Your task to perform on an android device: set the stopwatch Image 0: 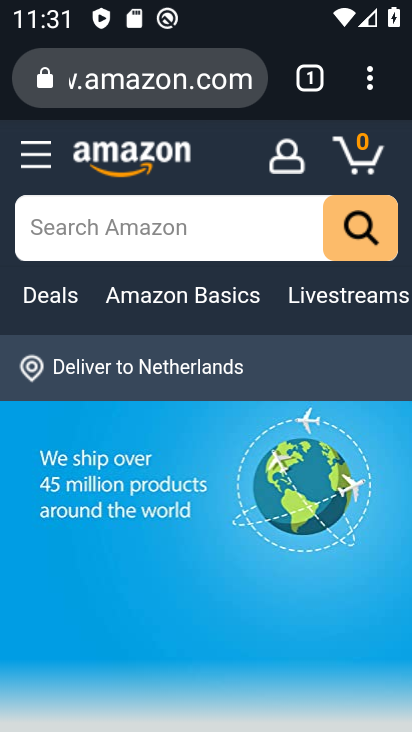
Step 0: press back button
Your task to perform on an android device: set the stopwatch Image 1: 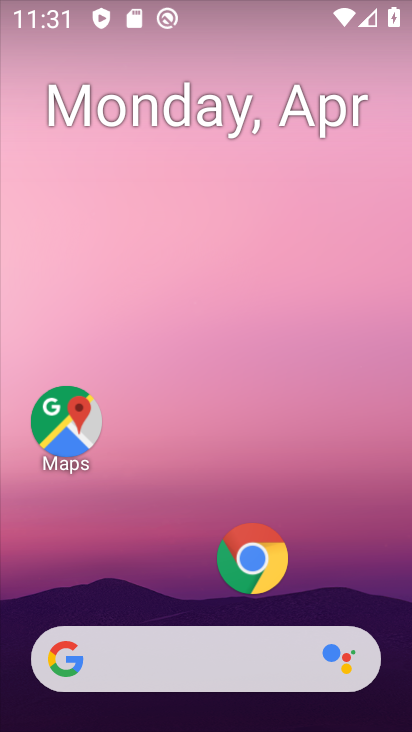
Step 1: drag from (142, 602) to (189, 101)
Your task to perform on an android device: set the stopwatch Image 2: 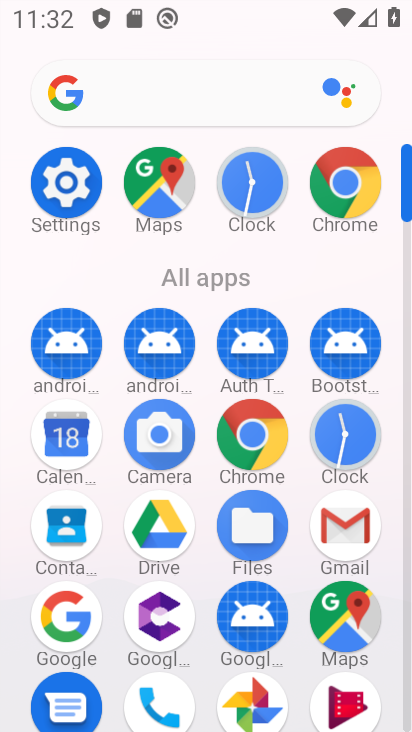
Step 2: click (355, 435)
Your task to perform on an android device: set the stopwatch Image 3: 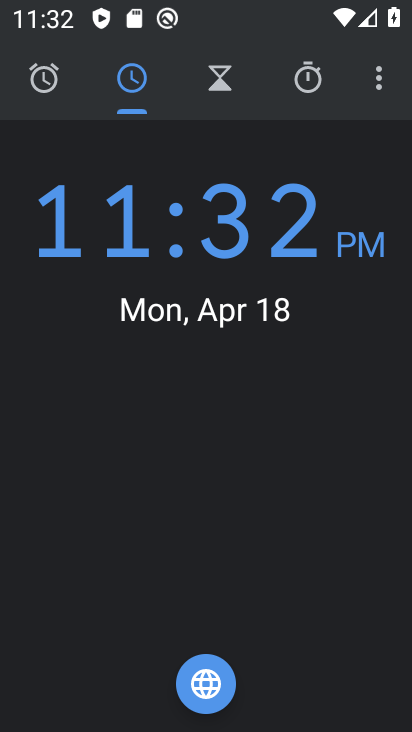
Step 3: click (305, 84)
Your task to perform on an android device: set the stopwatch Image 4: 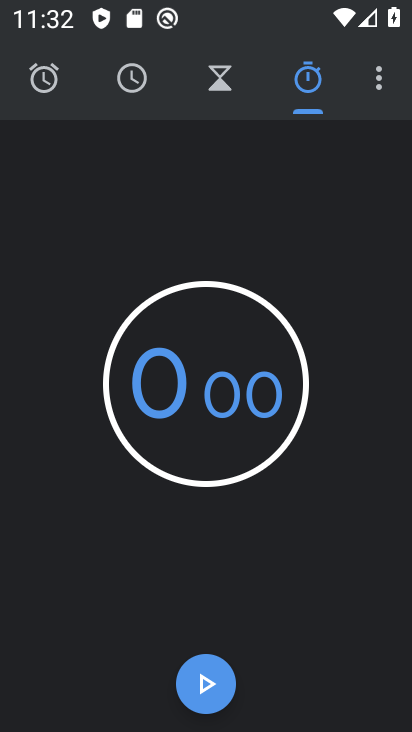
Step 4: click (225, 354)
Your task to perform on an android device: set the stopwatch Image 5: 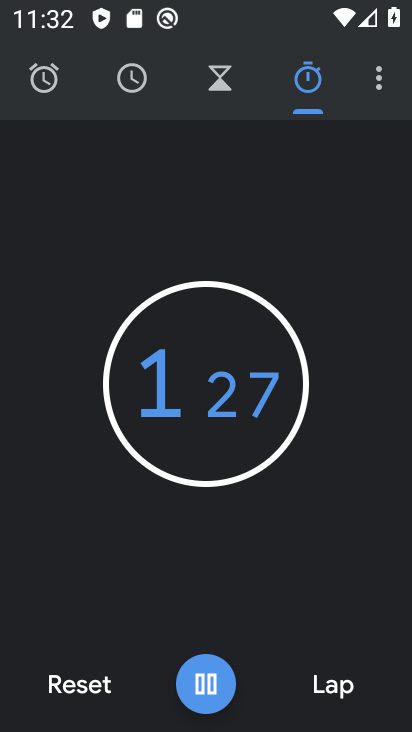
Step 5: task complete